Your task to perform on an android device: check out phone information Image 0: 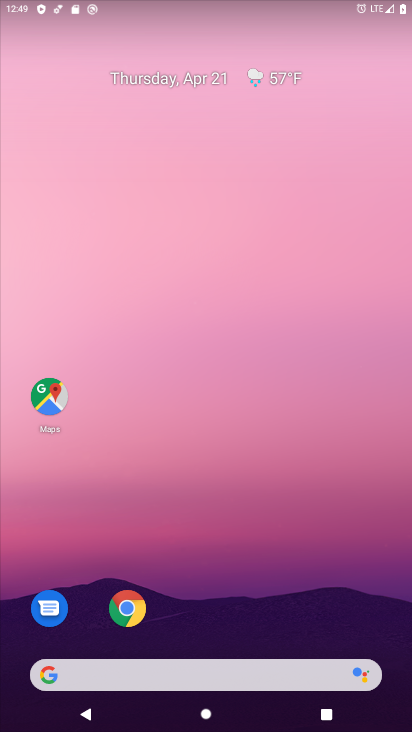
Step 0: drag from (240, 607) to (201, 202)
Your task to perform on an android device: check out phone information Image 1: 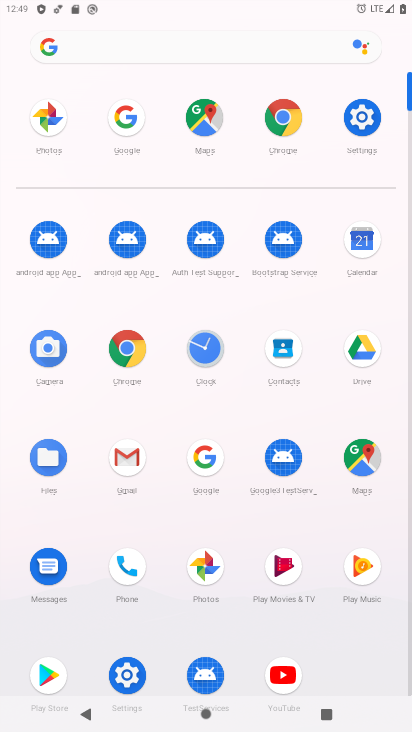
Step 1: click (353, 118)
Your task to perform on an android device: check out phone information Image 2: 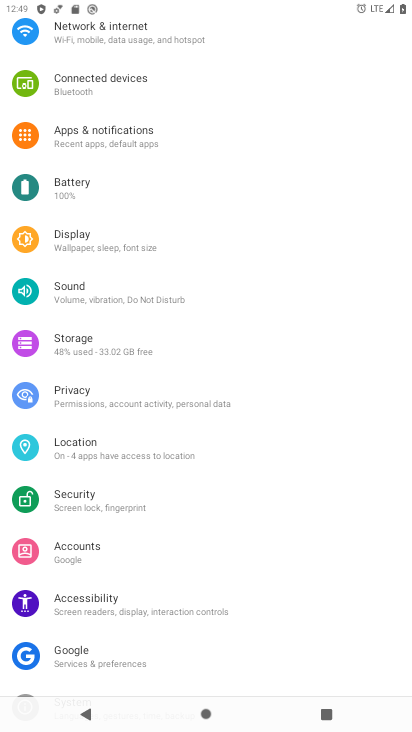
Step 2: drag from (208, 643) to (238, 111)
Your task to perform on an android device: check out phone information Image 3: 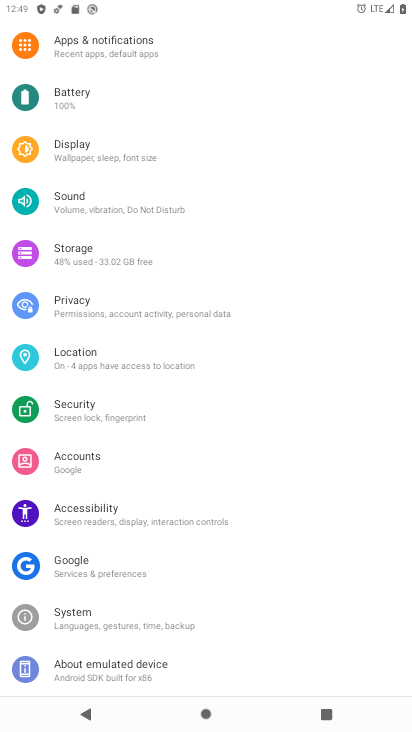
Step 3: click (121, 660)
Your task to perform on an android device: check out phone information Image 4: 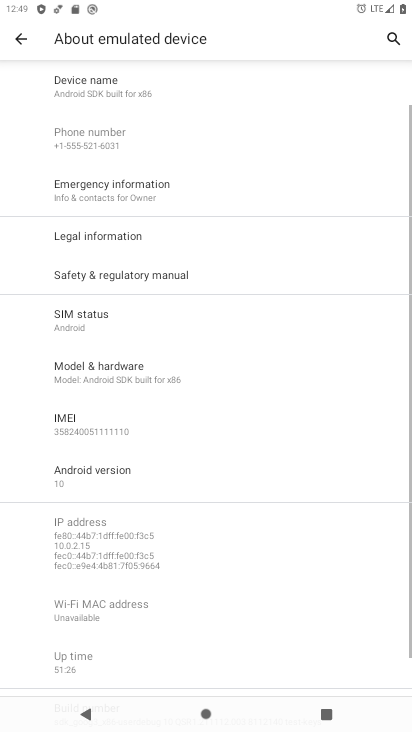
Step 4: task complete